Your task to perform on an android device: set default search engine in the chrome app Image 0: 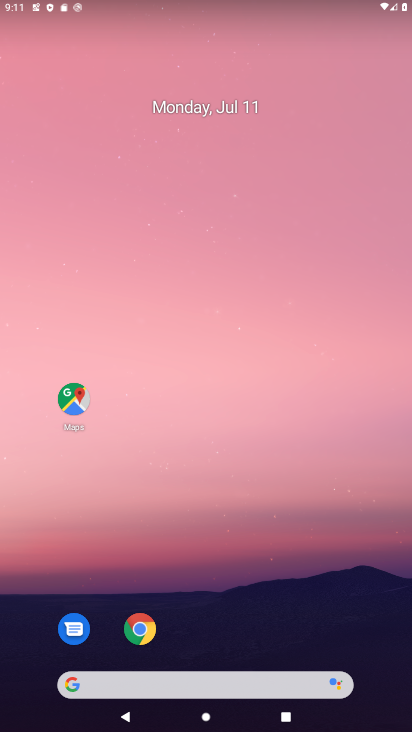
Step 0: click (143, 631)
Your task to perform on an android device: set default search engine in the chrome app Image 1: 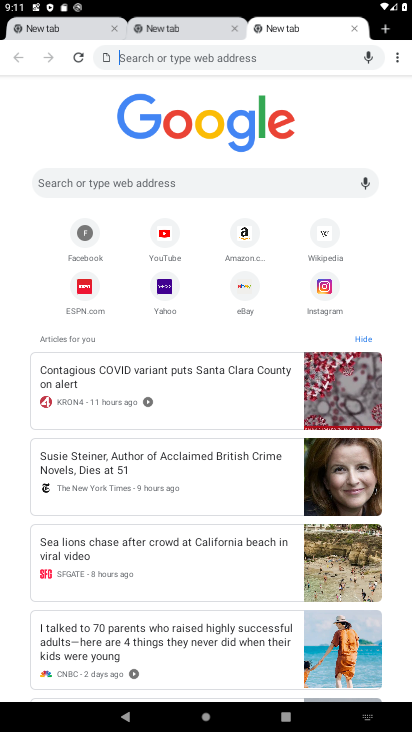
Step 1: click (389, 51)
Your task to perform on an android device: set default search engine in the chrome app Image 2: 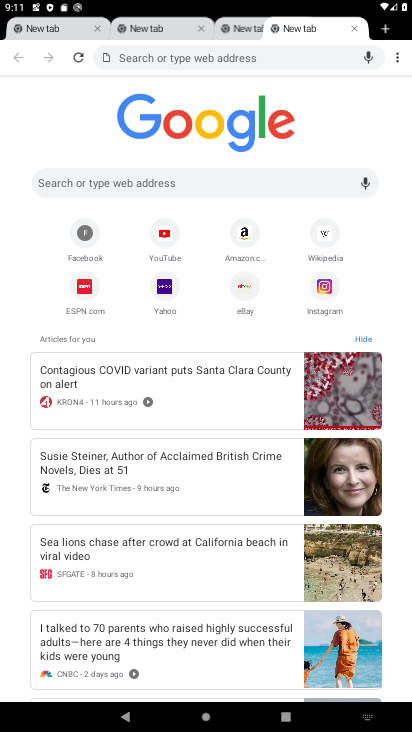
Step 2: click (395, 59)
Your task to perform on an android device: set default search engine in the chrome app Image 3: 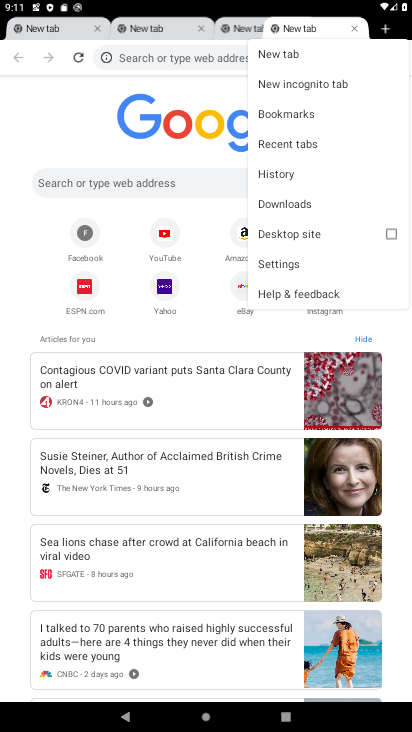
Step 3: click (271, 262)
Your task to perform on an android device: set default search engine in the chrome app Image 4: 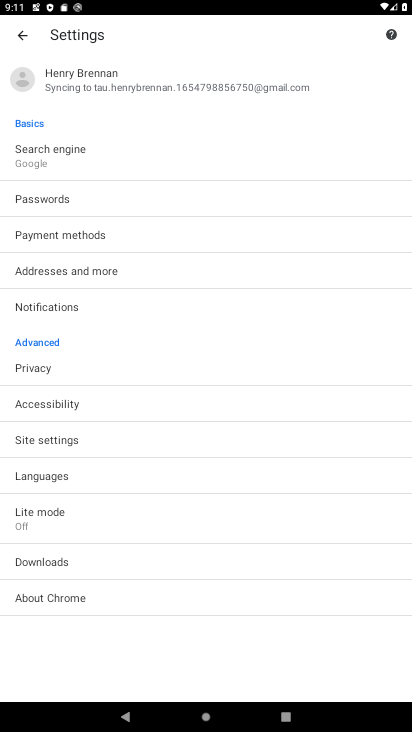
Step 4: click (48, 155)
Your task to perform on an android device: set default search engine in the chrome app Image 5: 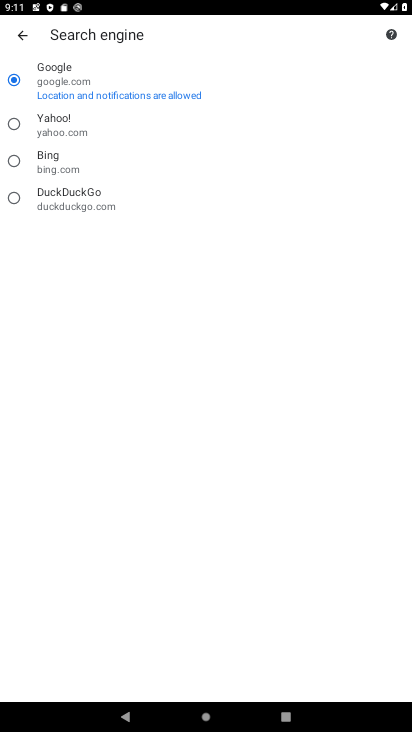
Step 5: click (68, 88)
Your task to perform on an android device: set default search engine in the chrome app Image 6: 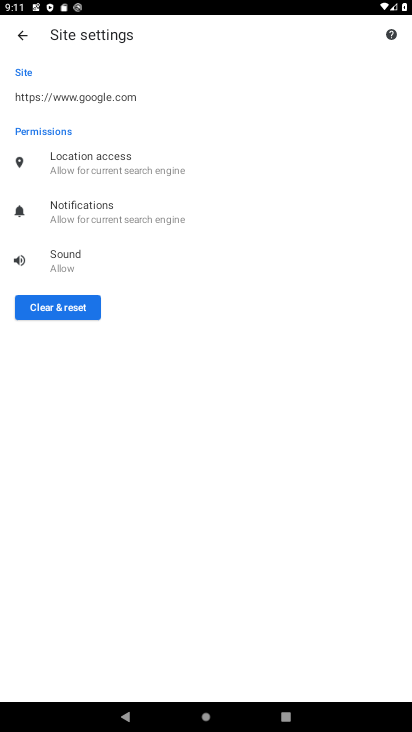
Step 6: task complete